Your task to perform on an android device: When is my next meeting? Image 0: 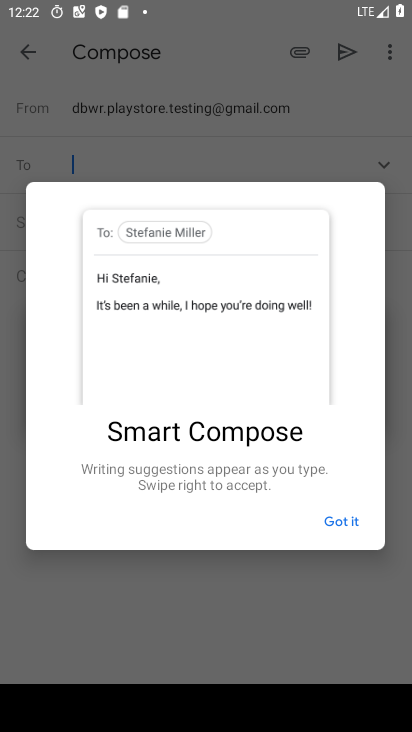
Step 0: press home button
Your task to perform on an android device: When is my next meeting? Image 1: 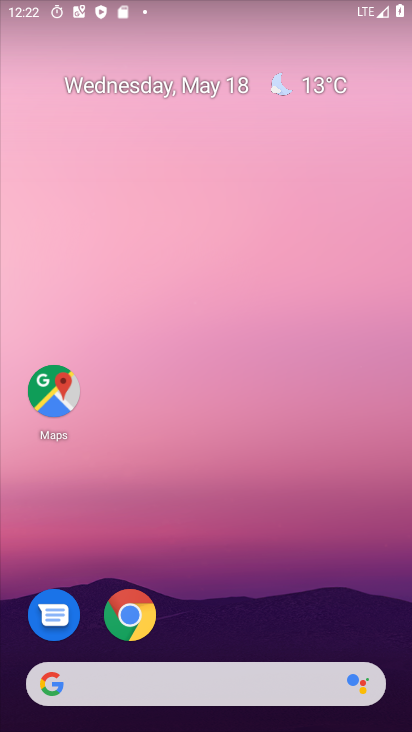
Step 1: drag from (182, 647) to (307, 170)
Your task to perform on an android device: When is my next meeting? Image 2: 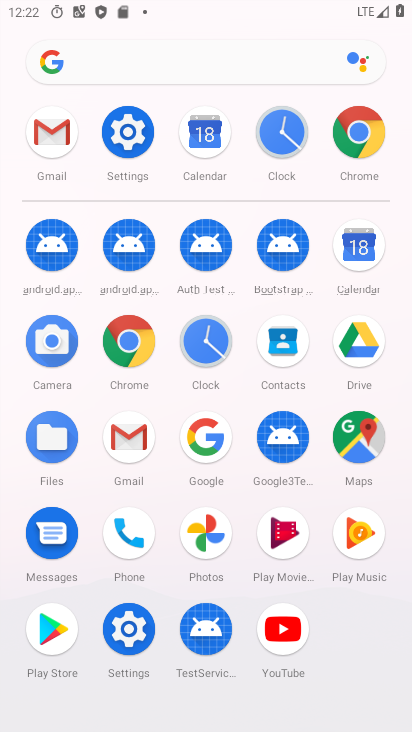
Step 2: click (351, 249)
Your task to perform on an android device: When is my next meeting? Image 3: 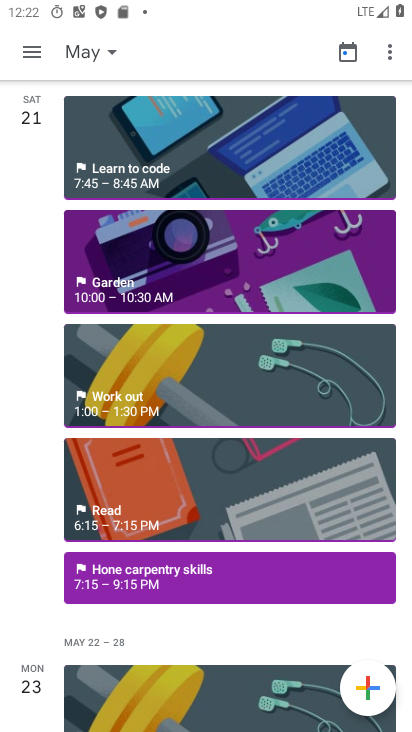
Step 3: click (90, 52)
Your task to perform on an android device: When is my next meeting? Image 4: 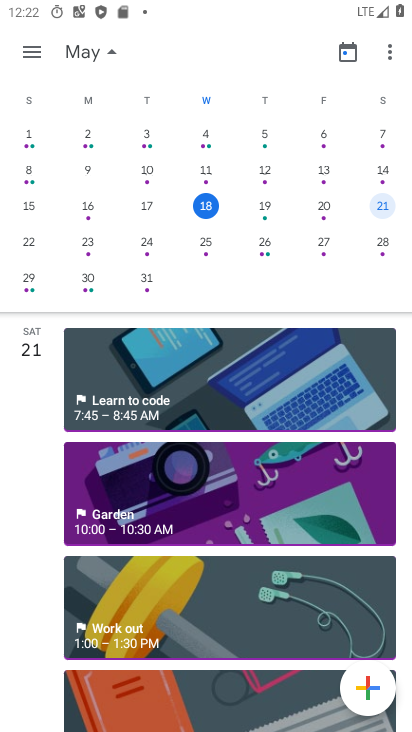
Step 4: click (211, 206)
Your task to perform on an android device: When is my next meeting? Image 5: 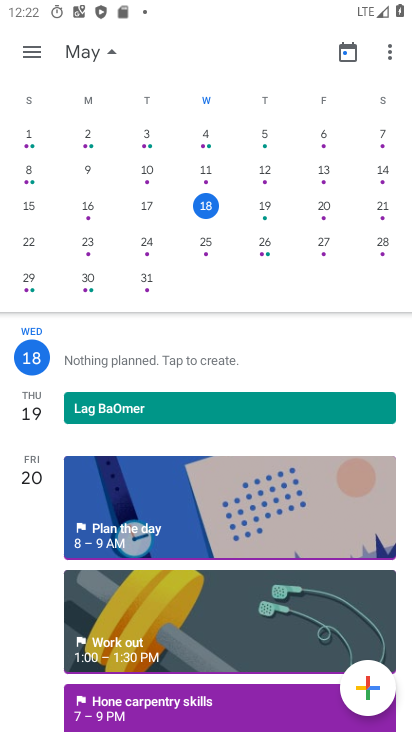
Step 5: click (36, 53)
Your task to perform on an android device: When is my next meeting? Image 6: 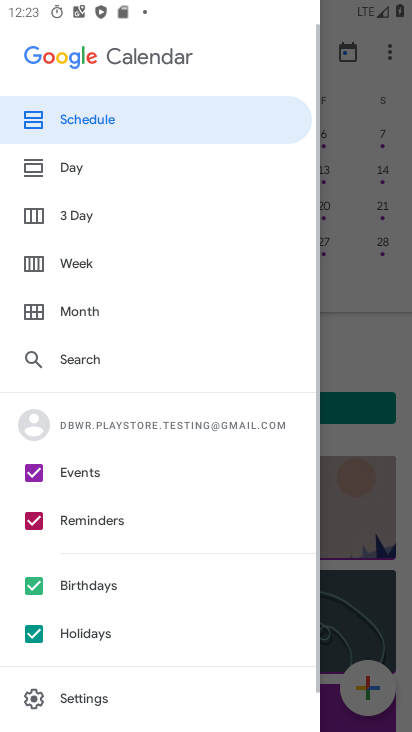
Step 6: click (116, 126)
Your task to perform on an android device: When is my next meeting? Image 7: 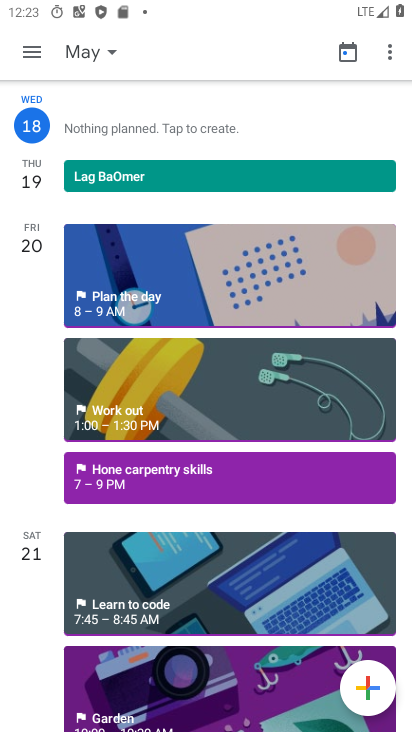
Step 7: task complete